Your task to perform on an android device: Turn off the flashlight Image 0: 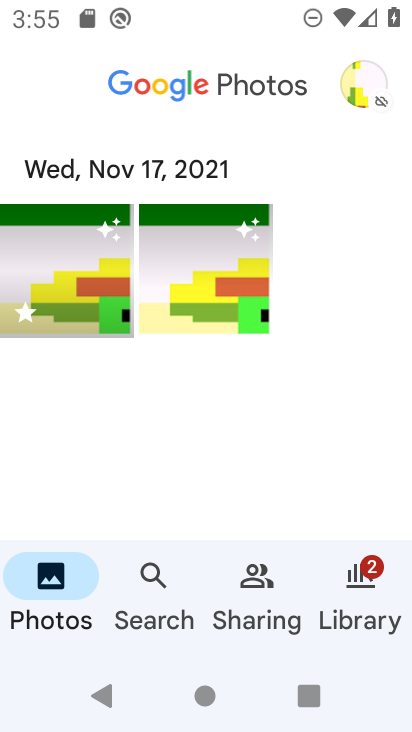
Step 0: press home button
Your task to perform on an android device: Turn off the flashlight Image 1: 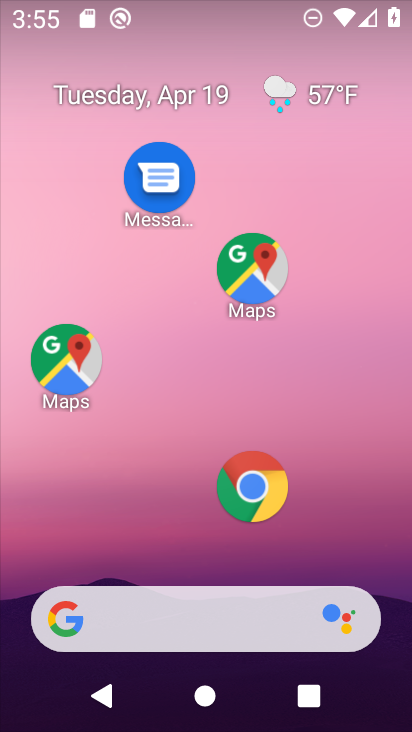
Step 1: task complete